Your task to perform on an android device: Open calendar and show me the first week of next month Image 0: 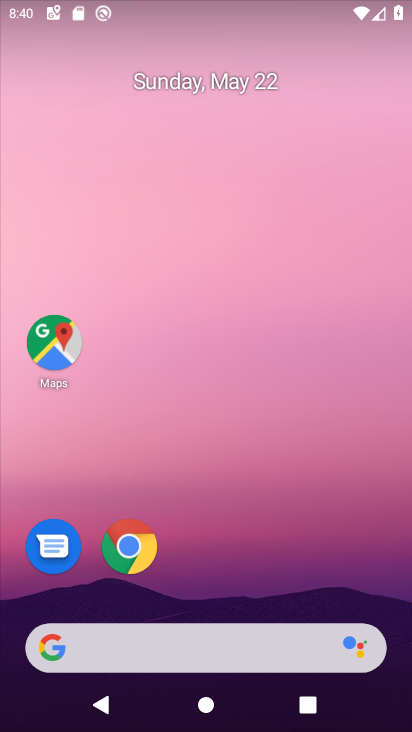
Step 0: drag from (374, 541) to (381, 118)
Your task to perform on an android device: Open calendar and show me the first week of next month Image 1: 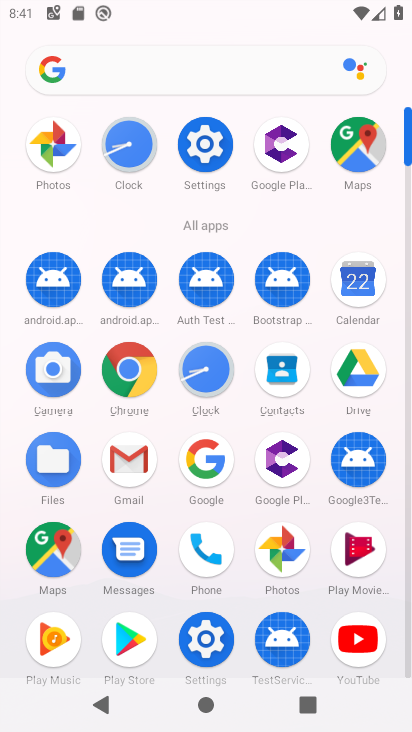
Step 1: click (349, 298)
Your task to perform on an android device: Open calendar and show me the first week of next month Image 2: 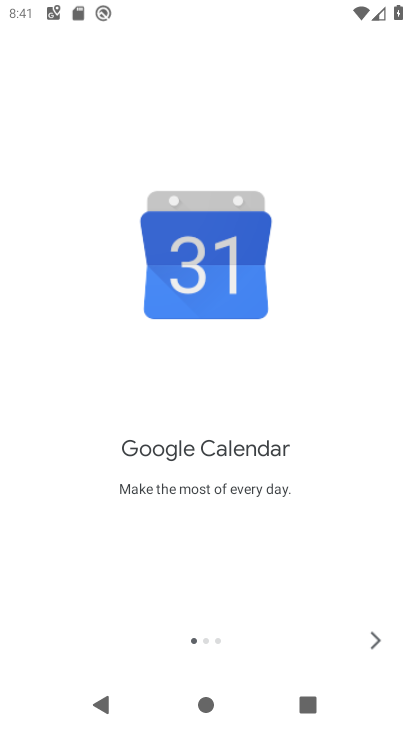
Step 2: click (376, 643)
Your task to perform on an android device: Open calendar and show me the first week of next month Image 3: 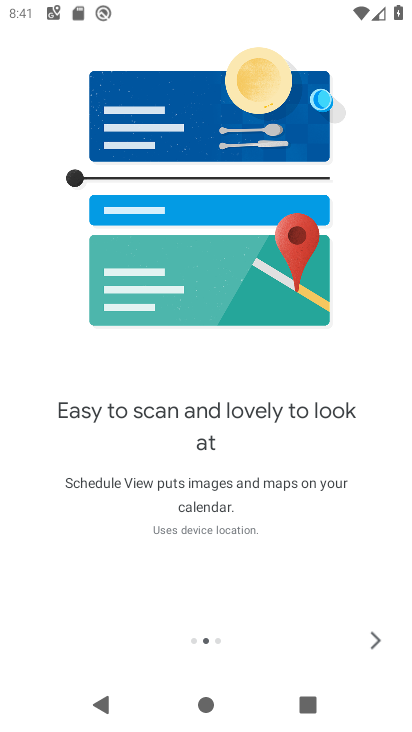
Step 3: click (376, 643)
Your task to perform on an android device: Open calendar and show me the first week of next month Image 4: 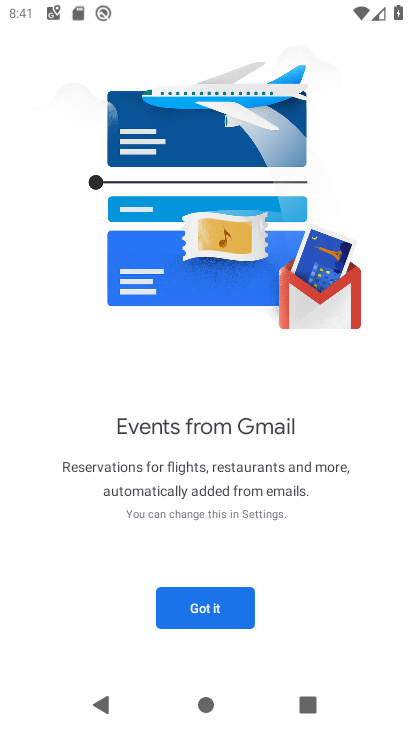
Step 4: click (228, 615)
Your task to perform on an android device: Open calendar and show me the first week of next month Image 5: 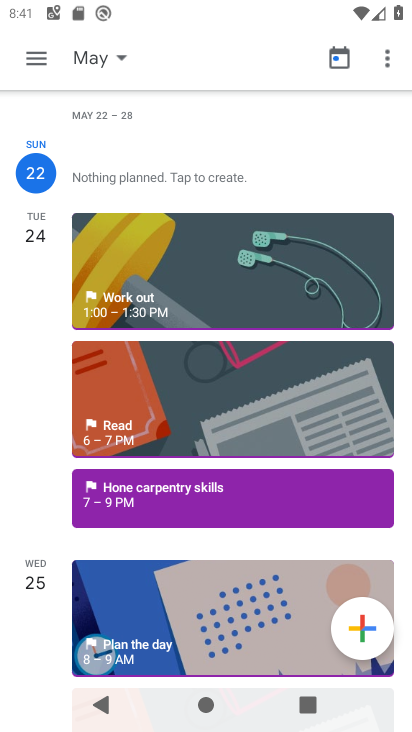
Step 5: click (116, 61)
Your task to perform on an android device: Open calendar and show me the first week of next month Image 6: 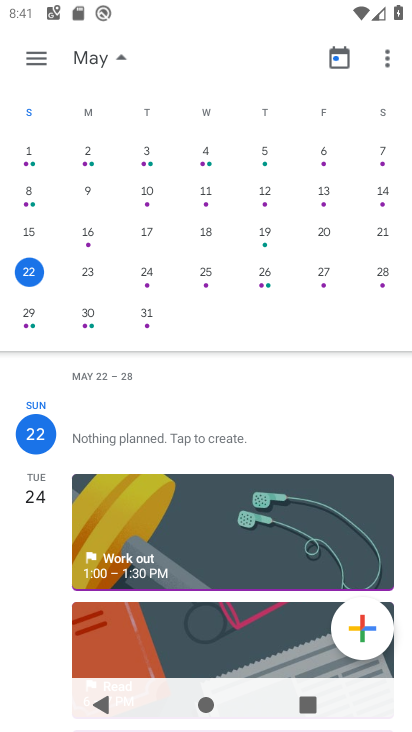
Step 6: drag from (253, 142) to (10, 145)
Your task to perform on an android device: Open calendar and show me the first week of next month Image 7: 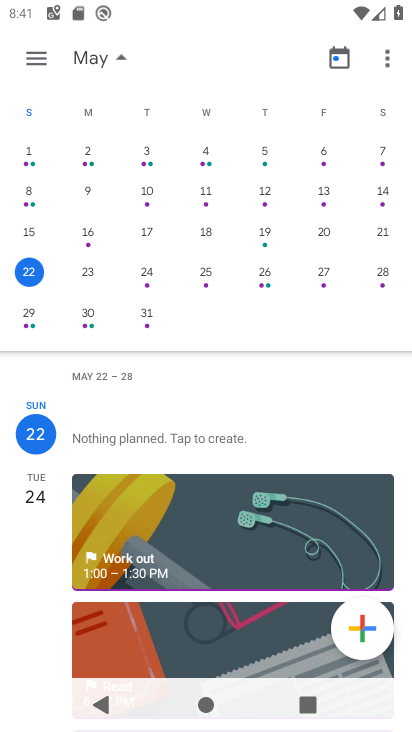
Step 7: drag from (372, 128) to (46, 129)
Your task to perform on an android device: Open calendar and show me the first week of next month Image 8: 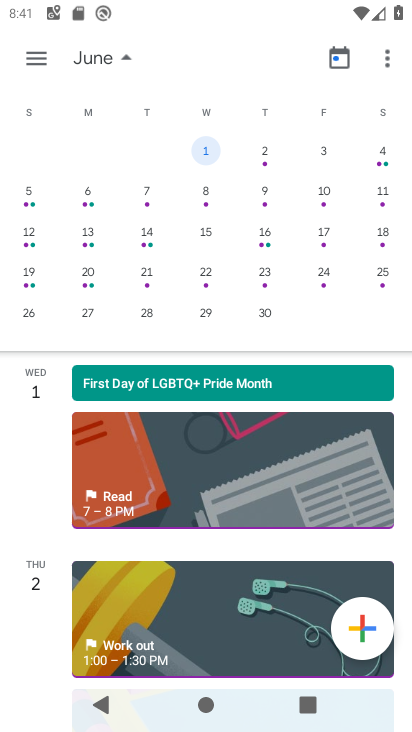
Step 8: click (209, 151)
Your task to perform on an android device: Open calendar and show me the first week of next month Image 9: 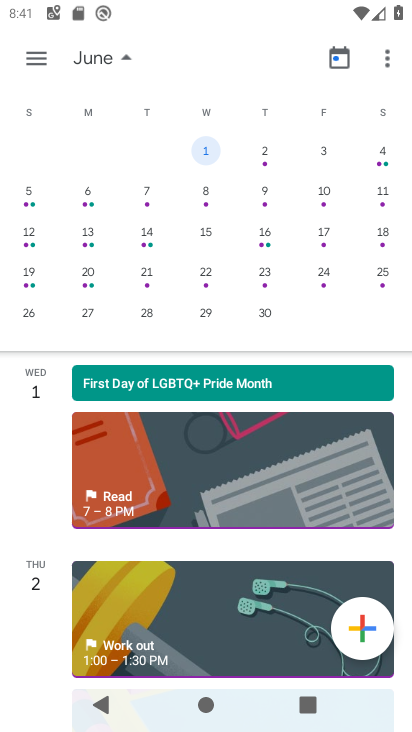
Step 9: task complete